Your task to perform on an android device: turn on bluetooth scan Image 0: 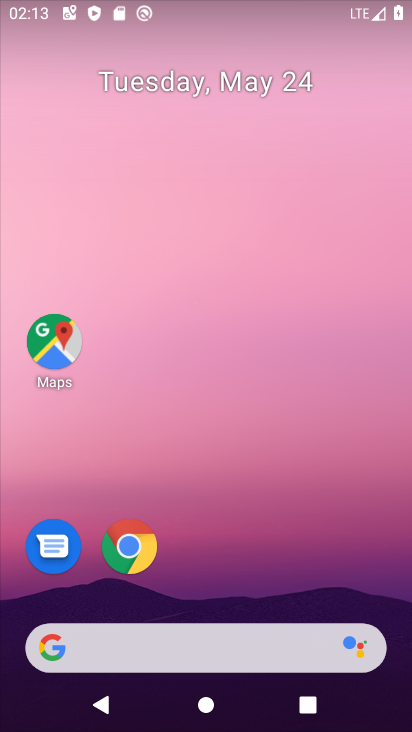
Step 0: drag from (218, 605) to (310, 13)
Your task to perform on an android device: turn on bluetooth scan Image 1: 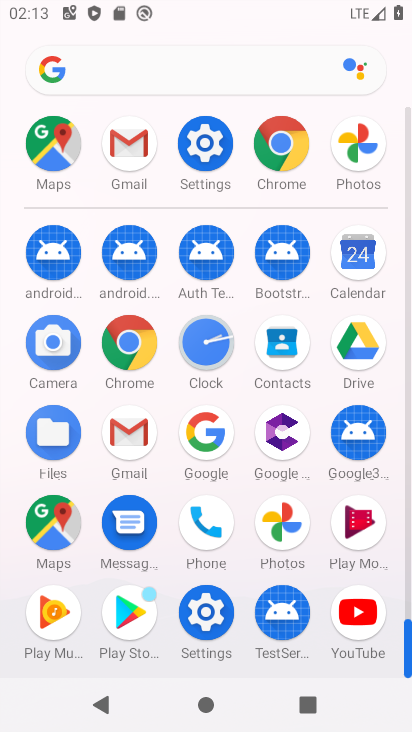
Step 1: click (215, 607)
Your task to perform on an android device: turn on bluetooth scan Image 2: 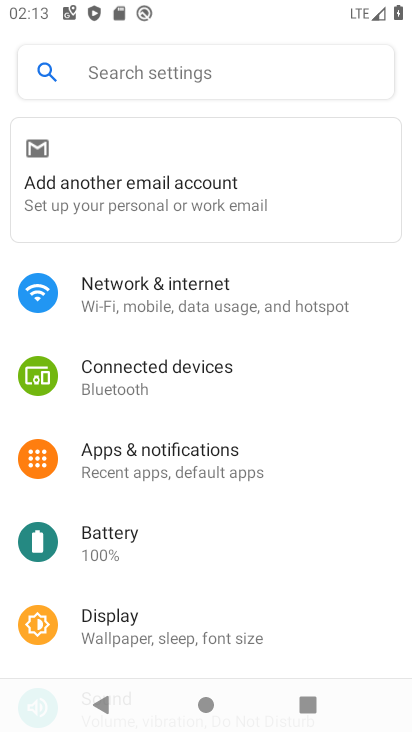
Step 2: drag from (173, 579) to (314, 3)
Your task to perform on an android device: turn on bluetooth scan Image 3: 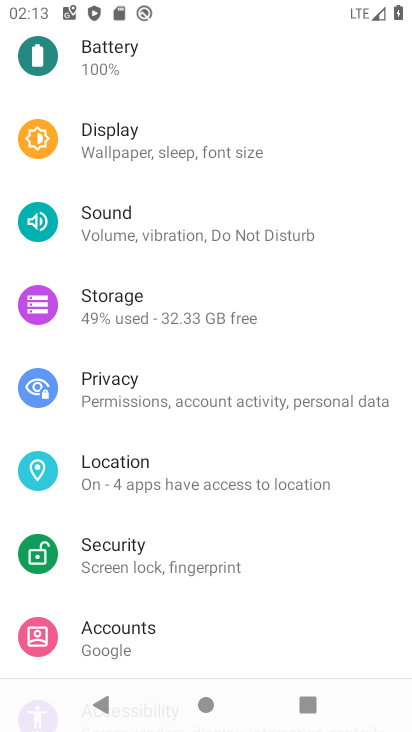
Step 3: click (137, 472)
Your task to perform on an android device: turn on bluetooth scan Image 4: 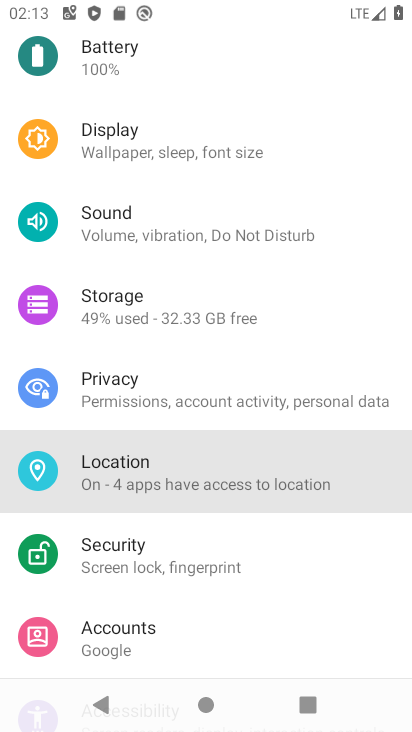
Step 4: click (137, 471)
Your task to perform on an android device: turn on bluetooth scan Image 5: 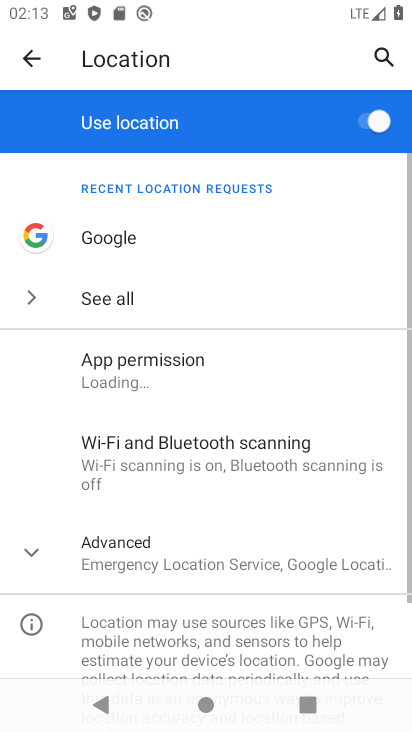
Step 5: click (147, 462)
Your task to perform on an android device: turn on bluetooth scan Image 6: 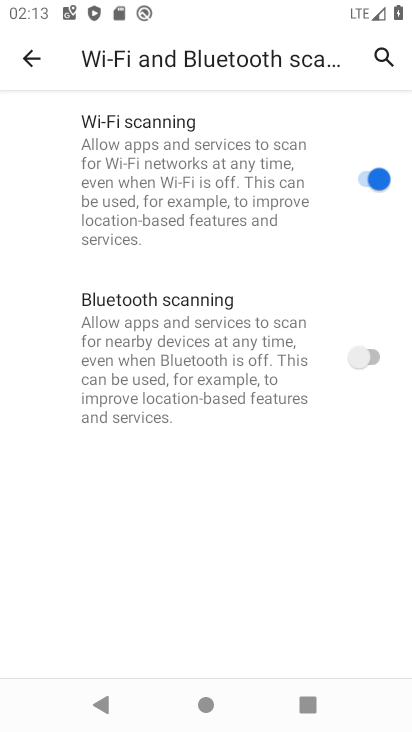
Step 6: click (356, 367)
Your task to perform on an android device: turn on bluetooth scan Image 7: 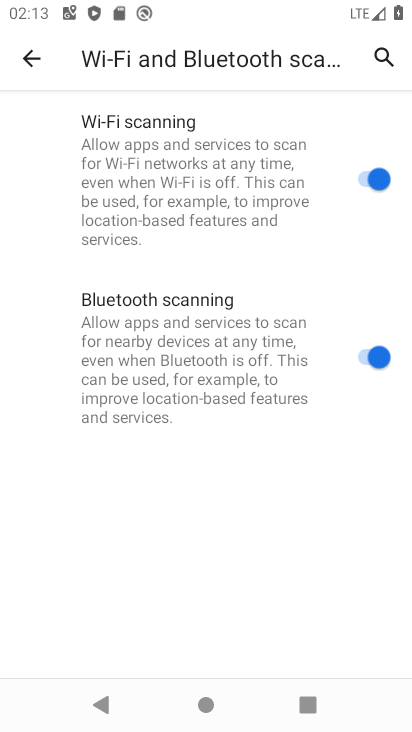
Step 7: task complete